Your task to perform on an android device: Show me productivity apps on the Play Store Image 0: 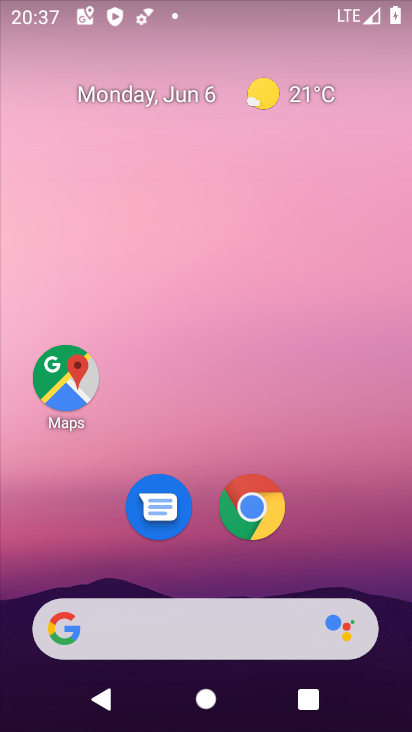
Step 0: drag from (216, 563) to (178, 102)
Your task to perform on an android device: Show me productivity apps on the Play Store Image 1: 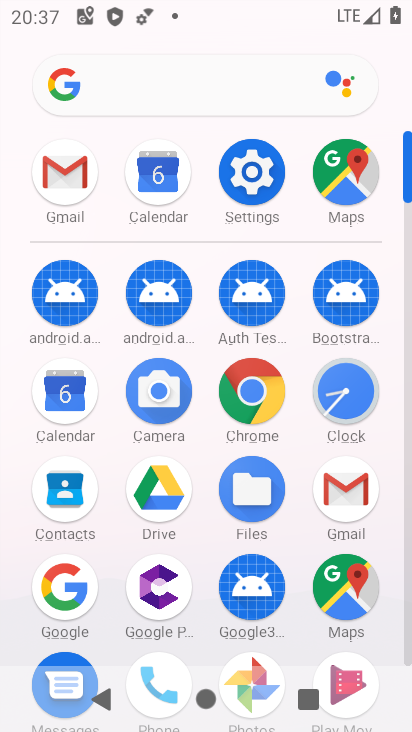
Step 1: drag from (207, 600) to (218, 106)
Your task to perform on an android device: Show me productivity apps on the Play Store Image 2: 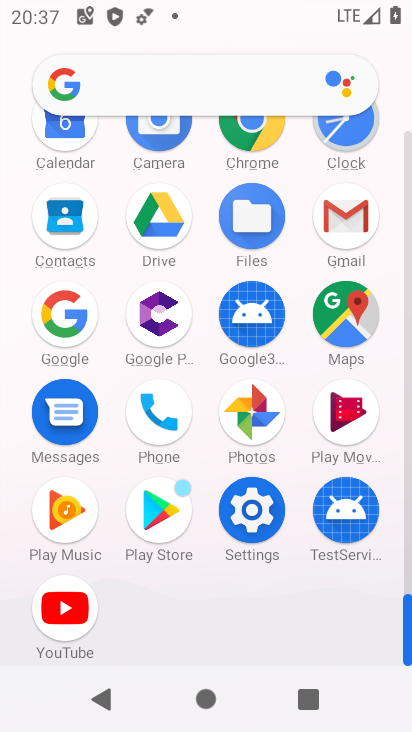
Step 2: click (151, 509)
Your task to perform on an android device: Show me productivity apps on the Play Store Image 3: 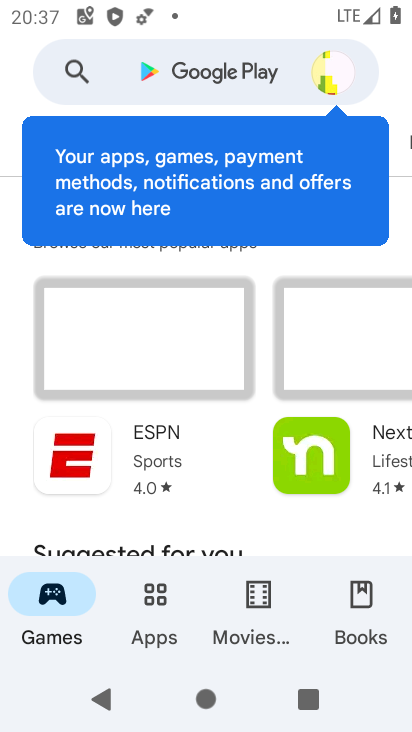
Step 3: click (142, 635)
Your task to perform on an android device: Show me productivity apps on the Play Store Image 4: 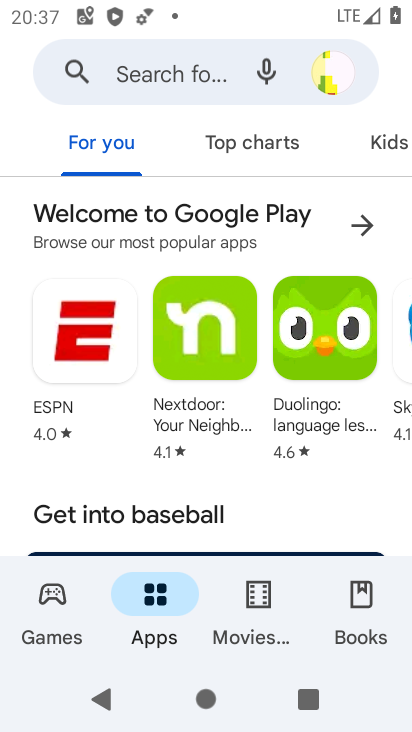
Step 4: drag from (278, 140) to (2, 136)
Your task to perform on an android device: Show me productivity apps on the Play Store Image 5: 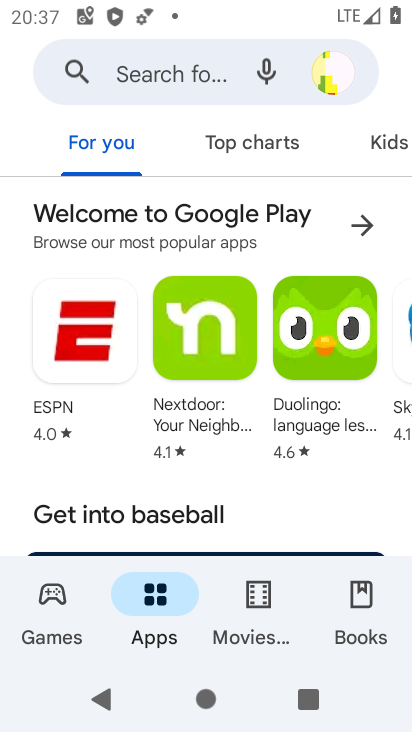
Step 5: drag from (348, 154) to (31, 148)
Your task to perform on an android device: Show me productivity apps on the Play Store Image 6: 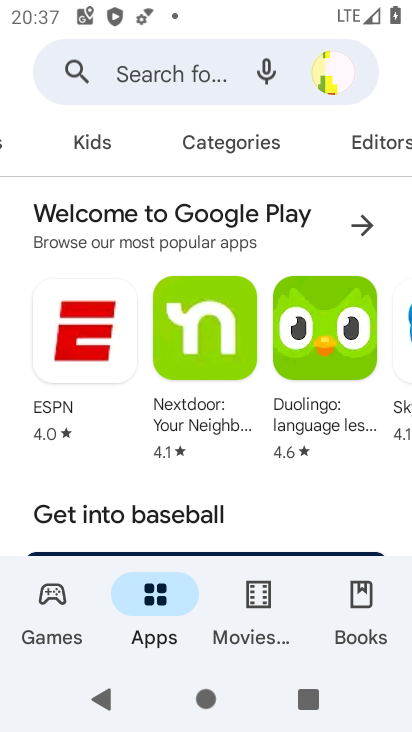
Step 6: click (209, 147)
Your task to perform on an android device: Show me productivity apps on the Play Store Image 7: 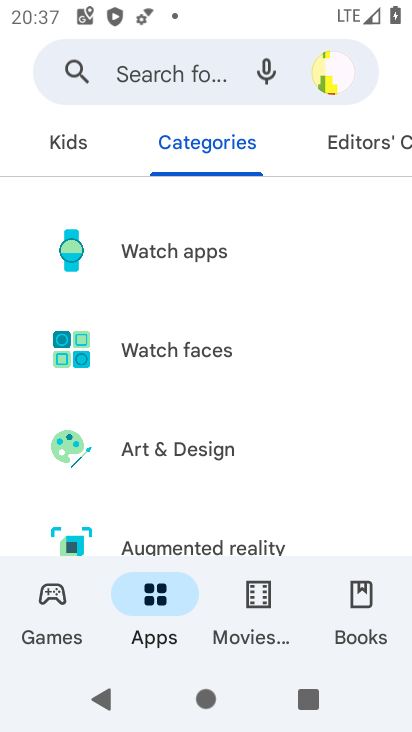
Step 7: drag from (179, 525) to (146, 122)
Your task to perform on an android device: Show me productivity apps on the Play Store Image 8: 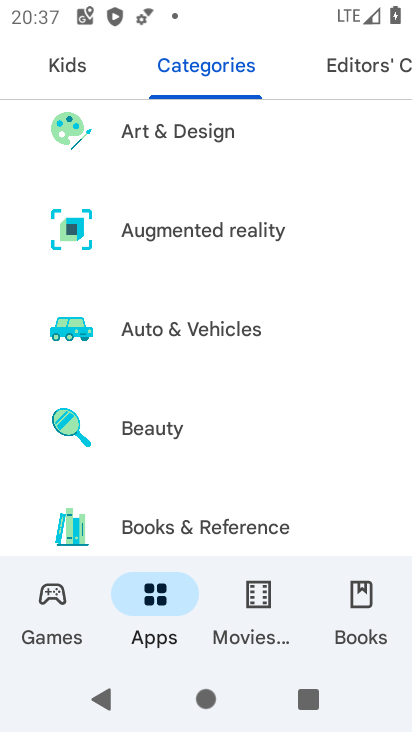
Step 8: drag from (222, 519) to (166, 129)
Your task to perform on an android device: Show me productivity apps on the Play Store Image 9: 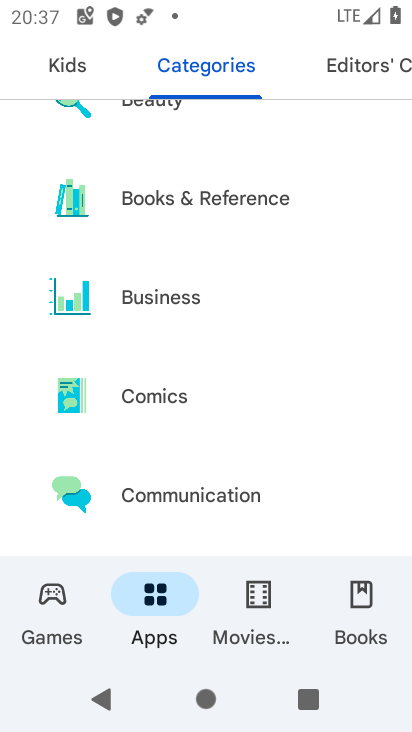
Step 9: drag from (172, 519) to (138, 52)
Your task to perform on an android device: Show me productivity apps on the Play Store Image 10: 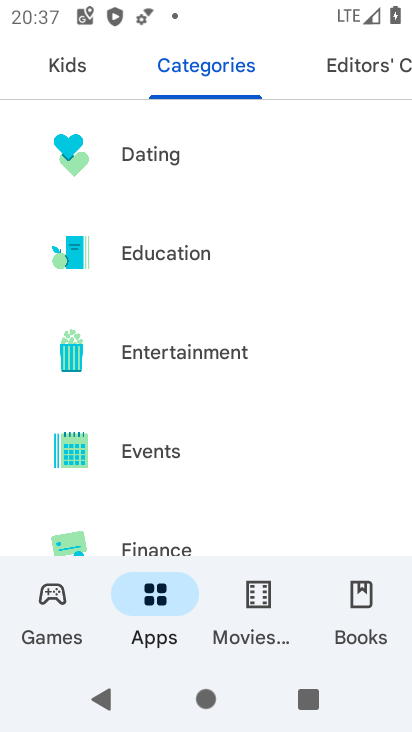
Step 10: drag from (193, 461) to (161, 93)
Your task to perform on an android device: Show me productivity apps on the Play Store Image 11: 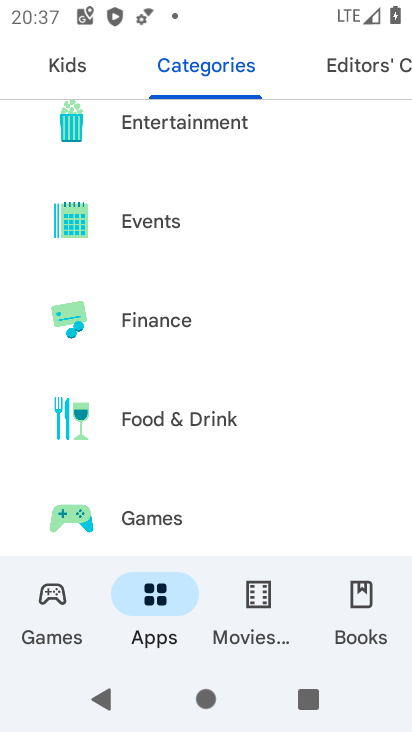
Step 11: drag from (140, 550) to (159, 140)
Your task to perform on an android device: Show me productivity apps on the Play Store Image 12: 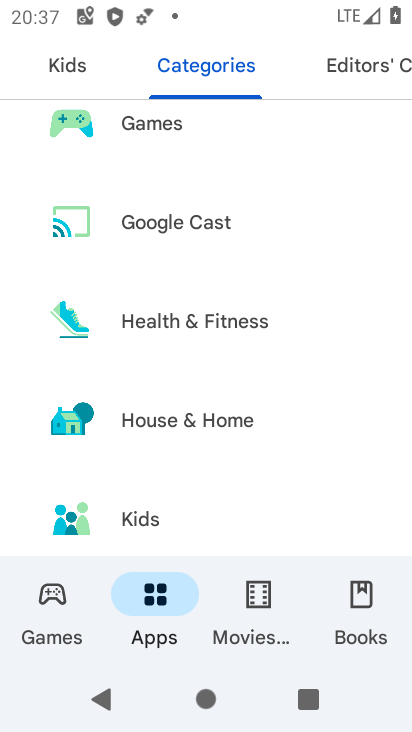
Step 12: drag from (170, 443) to (165, 137)
Your task to perform on an android device: Show me productivity apps on the Play Store Image 13: 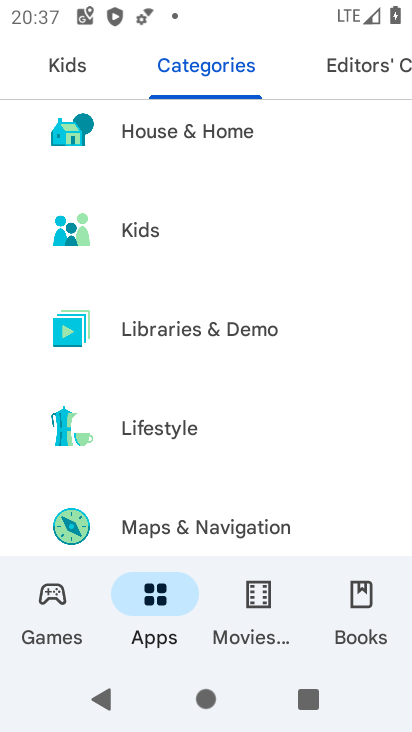
Step 13: drag from (162, 511) to (177, 140)
Your task to perform on an android device: Show me productivity apps on the Play Store Image 14: 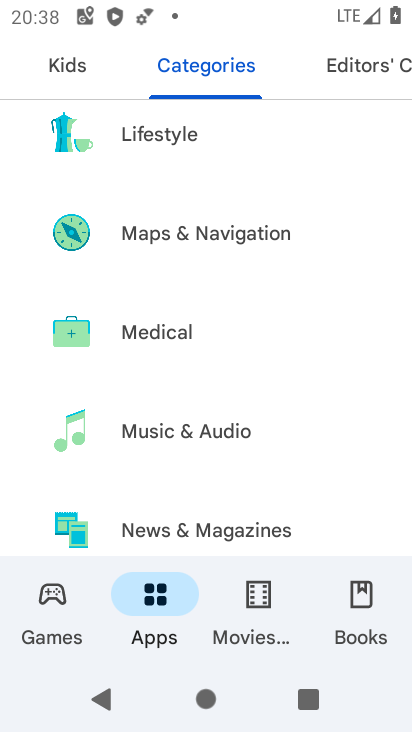
Step 14: drag from (180, 522) to (193, 159)
Your task to perform on an android device: Show me productivity apps on the Play Store Image 15: 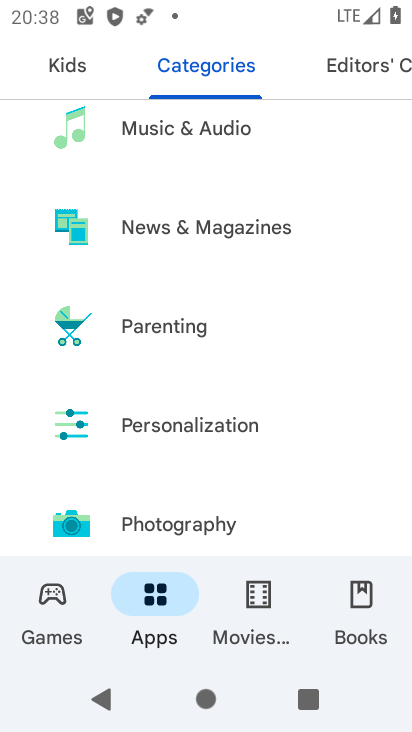
Step 15: drag from (191, 506) to (208, 237)
Your task to perform on an android device: Show me productivity apps on the Play Store Image 16: 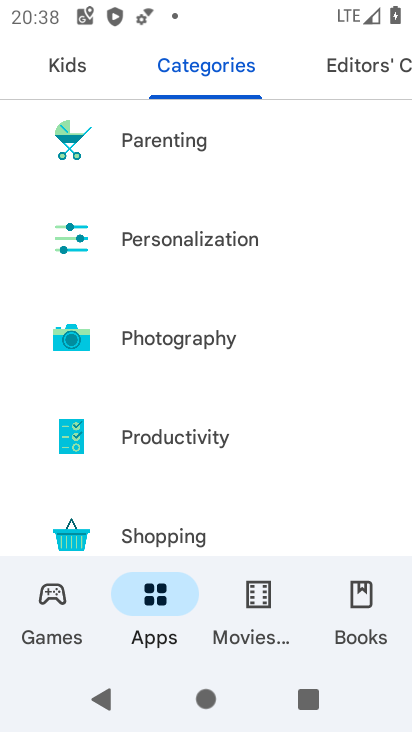
Step 16: click (171, 441)
Your task to perform on an android device: Show me productivity apps on the Play Store Image 17: 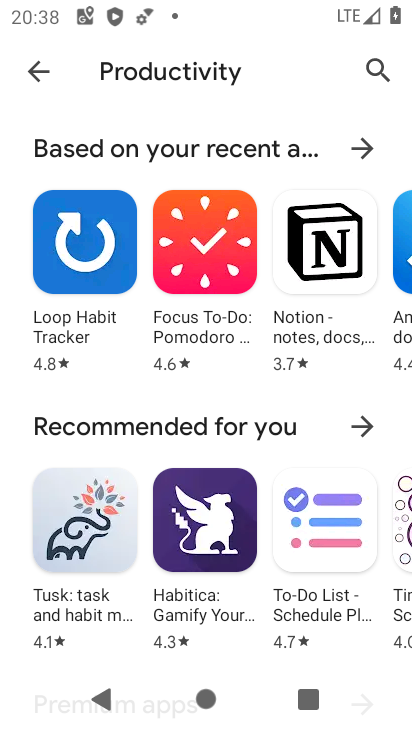
Step 17: task complete